Your task to perform on an android device: turn off location Image 0: 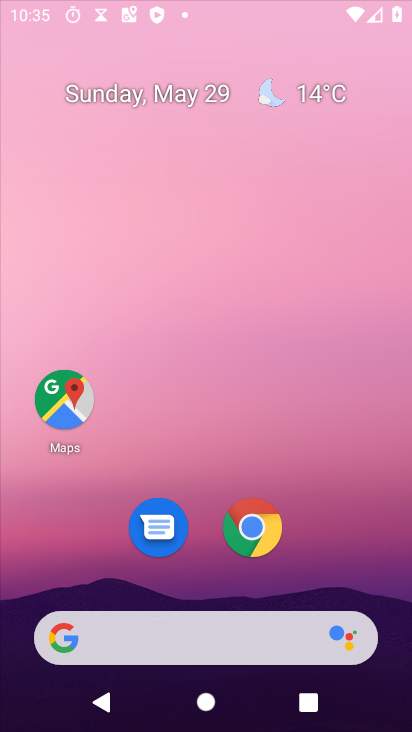
Step 0: press home button
Your task to perform on an android device: turn off location Image 1: 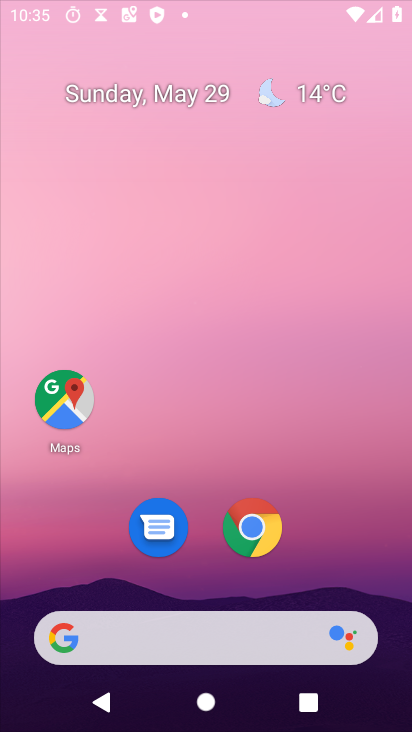
Step 1: click (327, 1)
Your task to perform on an android device: turn off location Image 2: 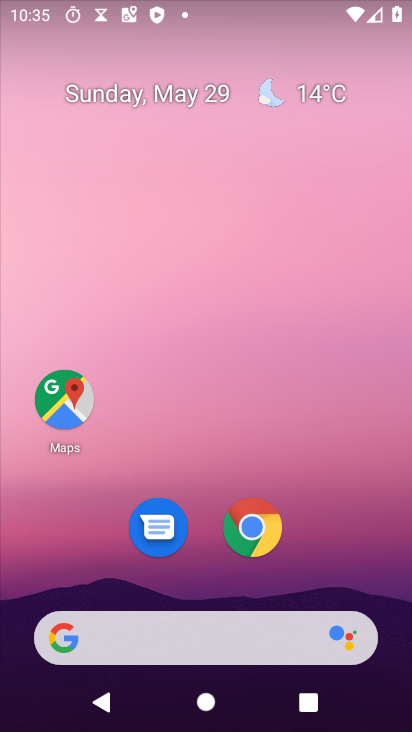
Step 2: drag from (159, 638) to (326, 30)
Your task to perform on an android device: turn off location Image 3: 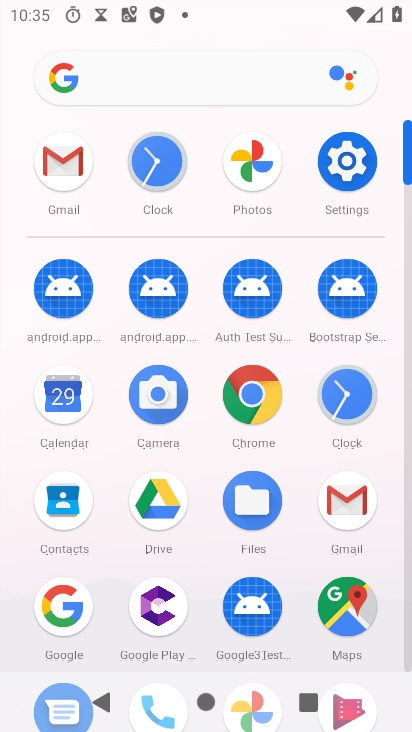
Step 3: click (332, 161)
Your task to perform on an android device: turn off location Image 4: 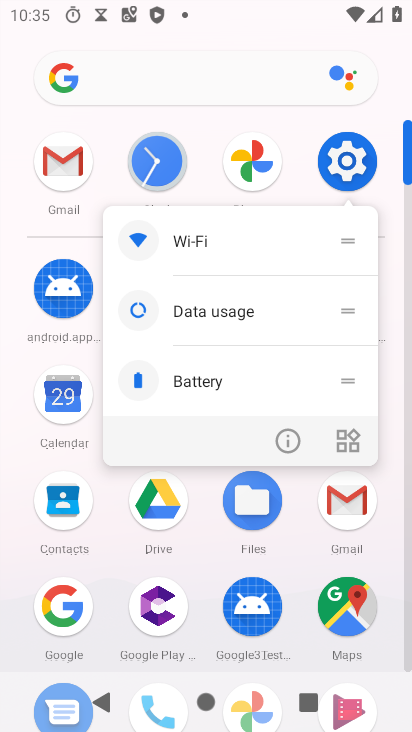
Step 4: click (350, 160)
Your task to perform on an android device: turn off location Image 5: 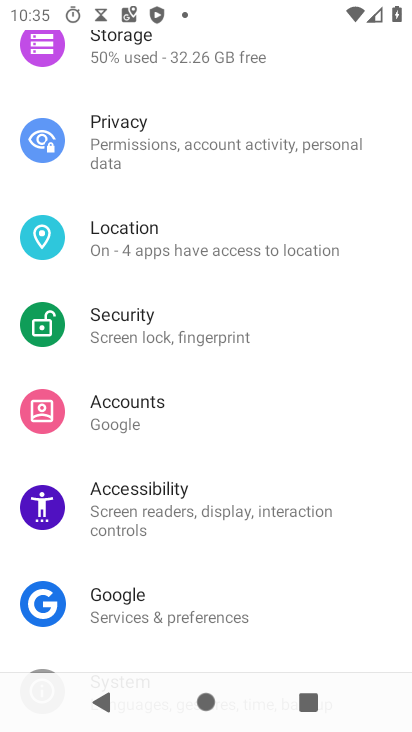
Step 5: click (132, 229)
Your task to perform on an android device: turn off location Image 6: 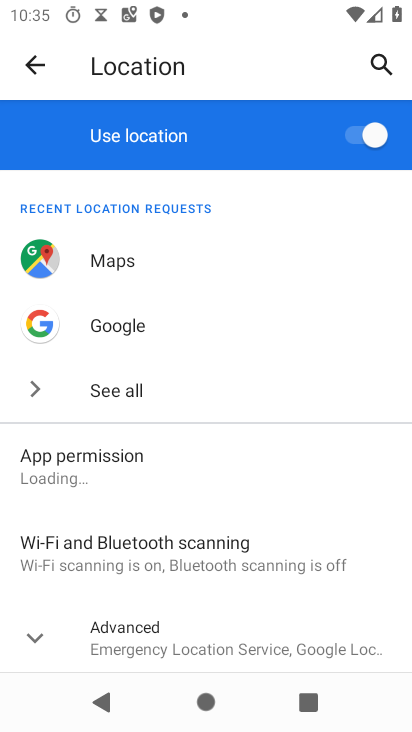
Step 6: click (352, 133)
Your task to perform on an android device: turn off location Image 7: 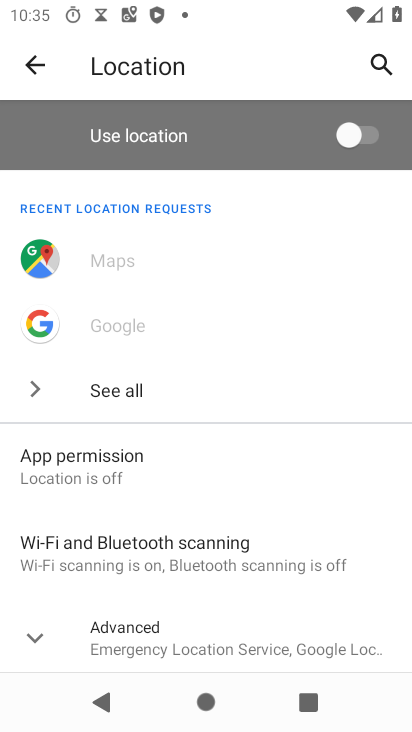
Step 7: task complete